Your task to perform on an android device: Open Chrome and go to settings Image 0: 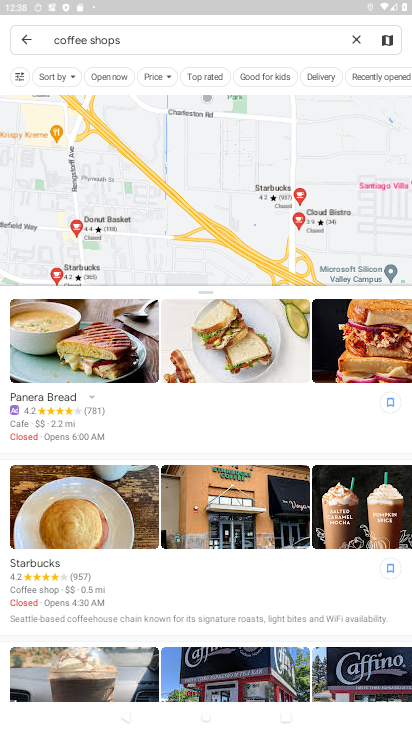
Step 0: press home button
Your task to perform on an android device: Open Chrome and go to settings Image 1: 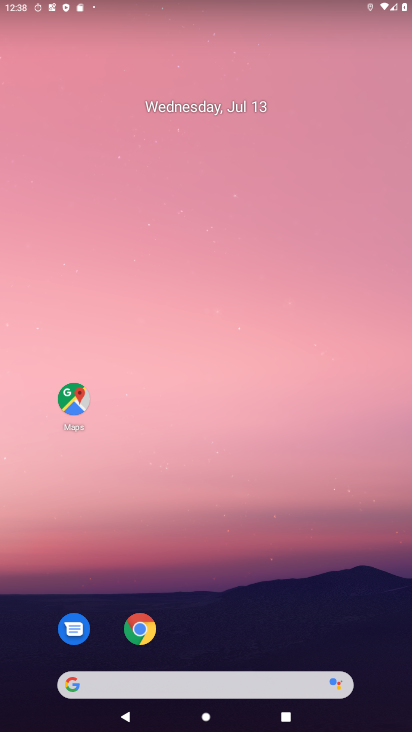
Step 1: click (129, 633)
Your task to perform on an android device: Open Chrome and go to settings Image 2: 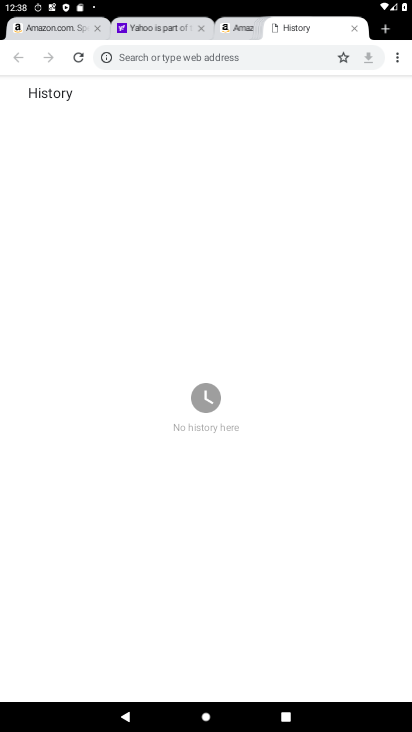
Step 2: click (396, 65)
Your task to perform on an android device: Open Chrome and go to settings Image 3: 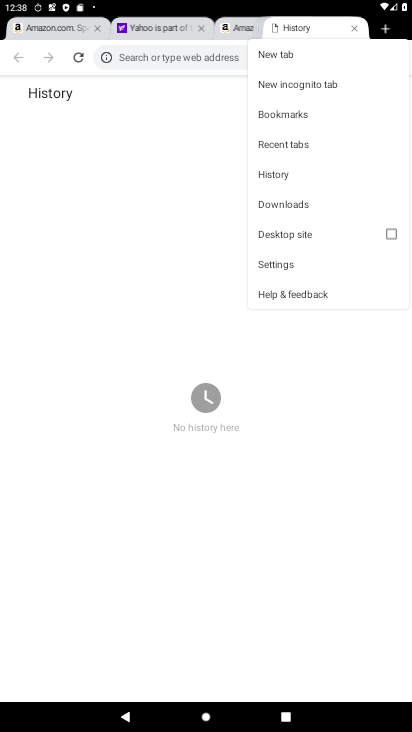
Step 3: click (295, 264)
Your task to perform on an android device: Open Chrome and go to settings Image 4: 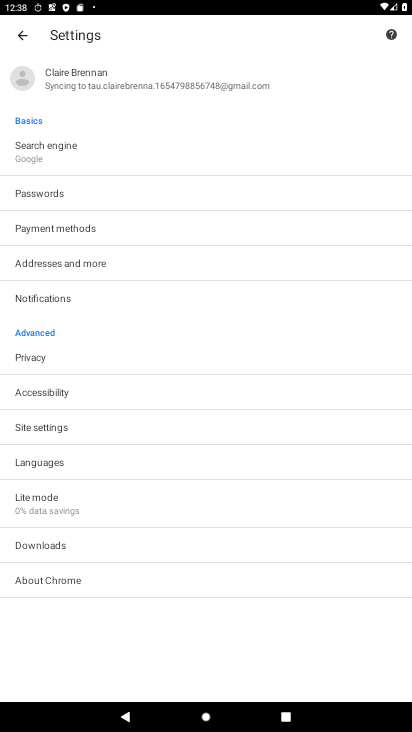
Step 4: task complete